Your task to perform on an android device: open wifi settings Image 0: 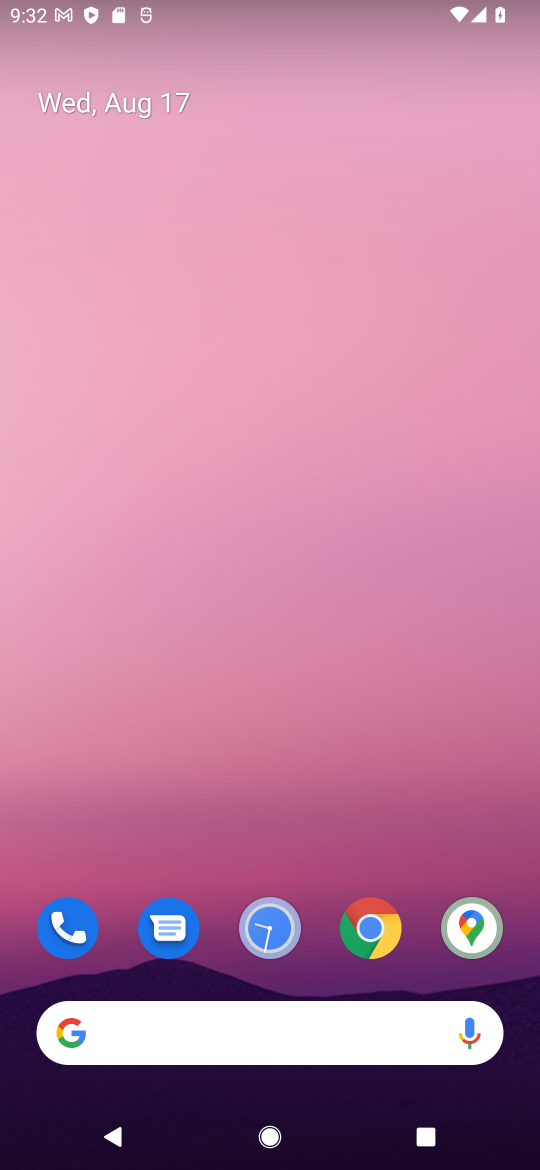
Step 0: drag from (283, 13) to (125, 1009)
Your task to perform on an android device: open wifi settings Image 1: 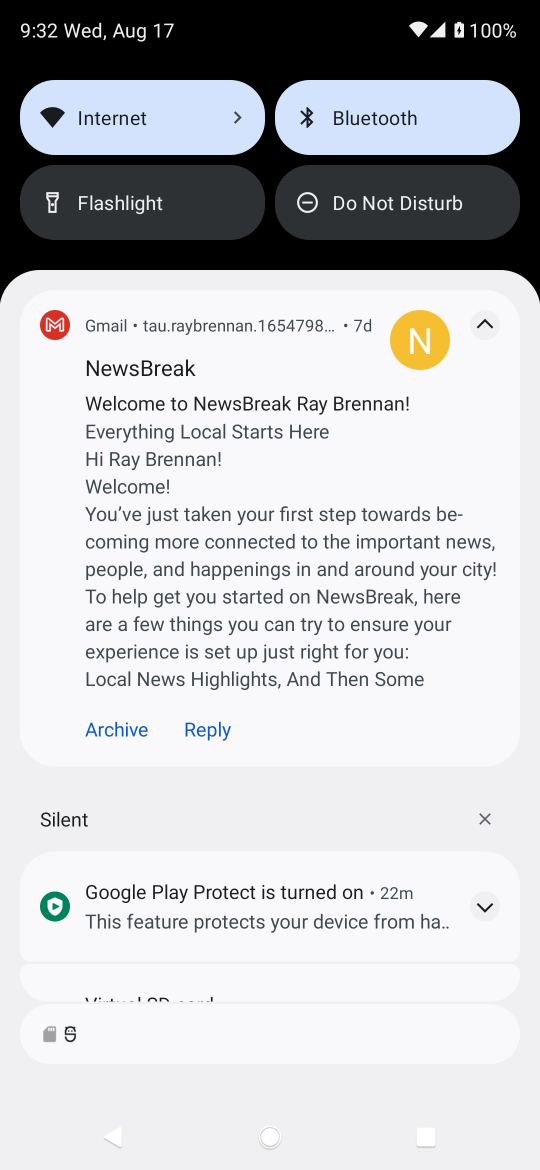
Step 1: click (142, 121)
Your task to perform on an android device: open wifi settings Image 2: 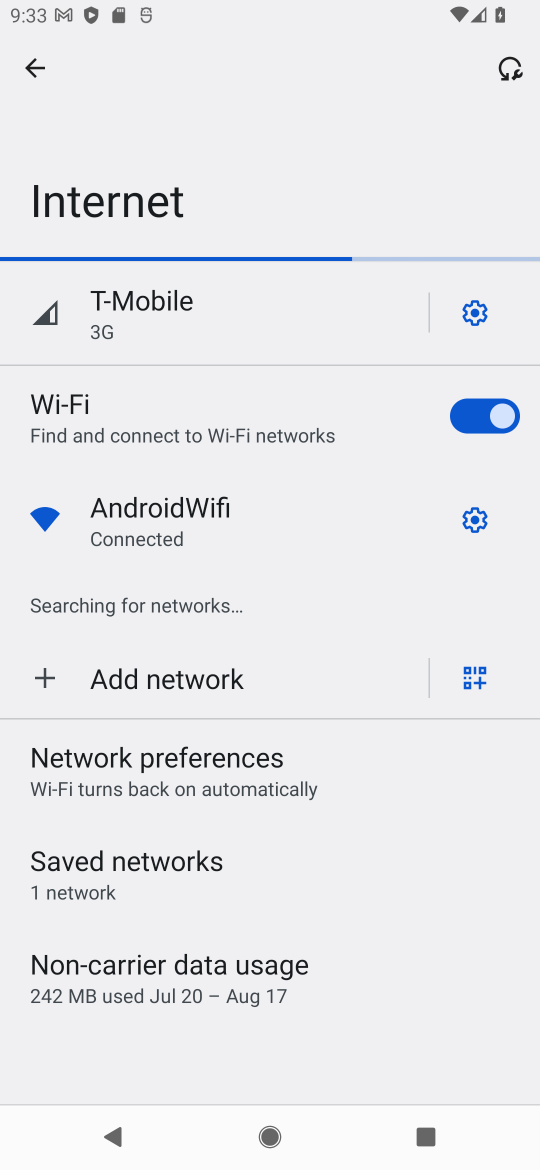
Step 2: task complete